Your task to perform on an android device: check data usage Image 0: 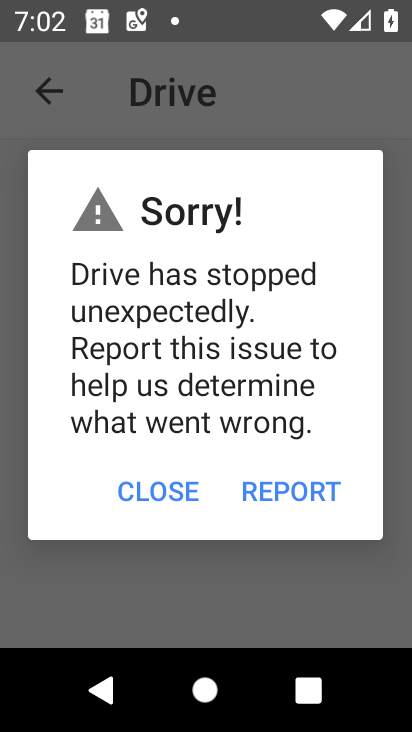
Step 0: press home button
Your task to perform on an android device: check data usage Image 1: 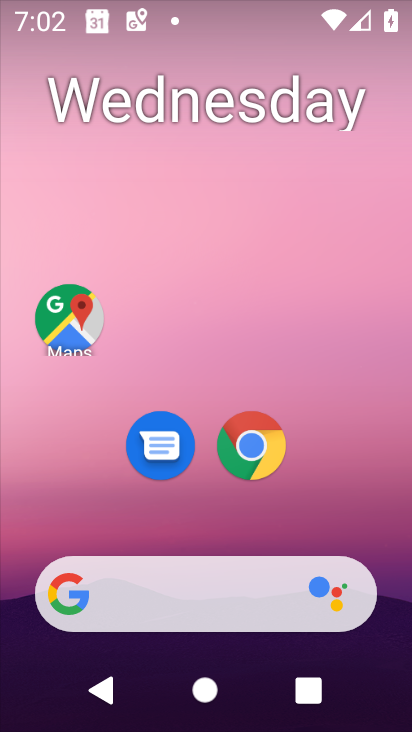
Step 1: drag from (349, 510) to (285, 72)
Your task to perform on an android device: check data usage Image 2: 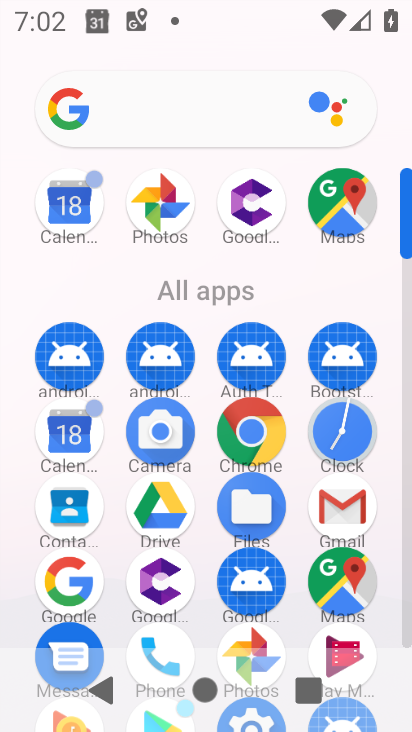
Step 2: drag from (289, 549) to (296, 234)
Your task to perform on an android device: check data usage Image 3: 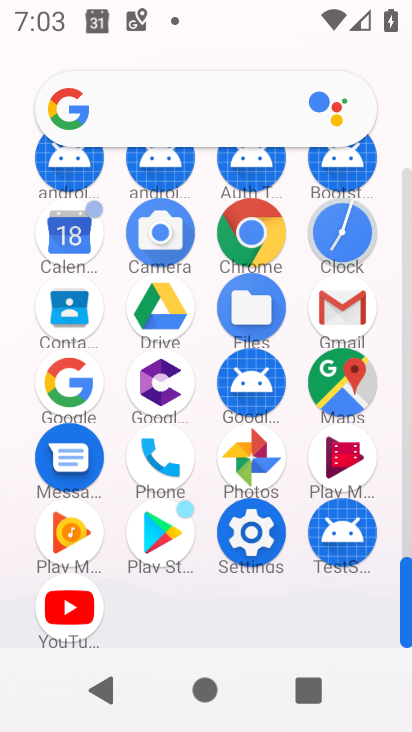
Step 3: click (251, 533)
Your task to perform on an android device: check data usage Image 4: 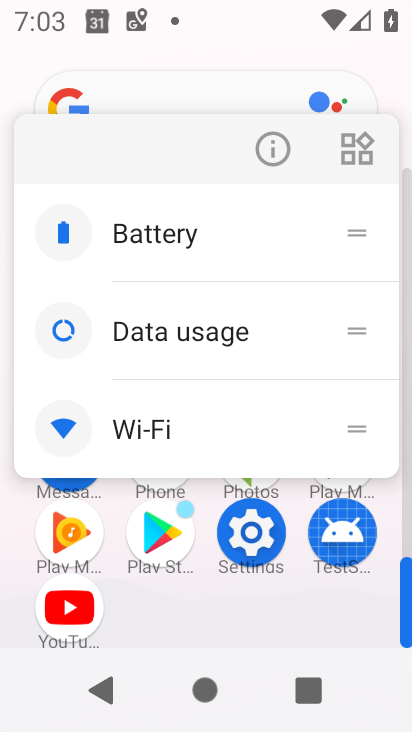
Step 4: click (147, 332)
Your task to perform on an android device: check data usage Image 5: 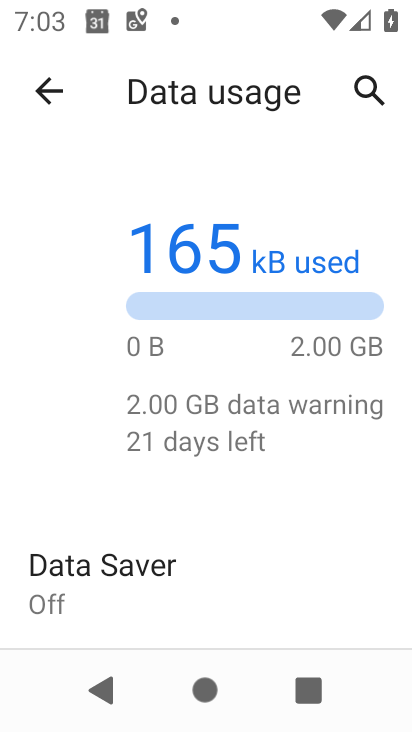
Step 5: task complete